Your task to perform on an android device: open app "Gmail" (install if not already installed), go to login, and select forgot password Image 0: 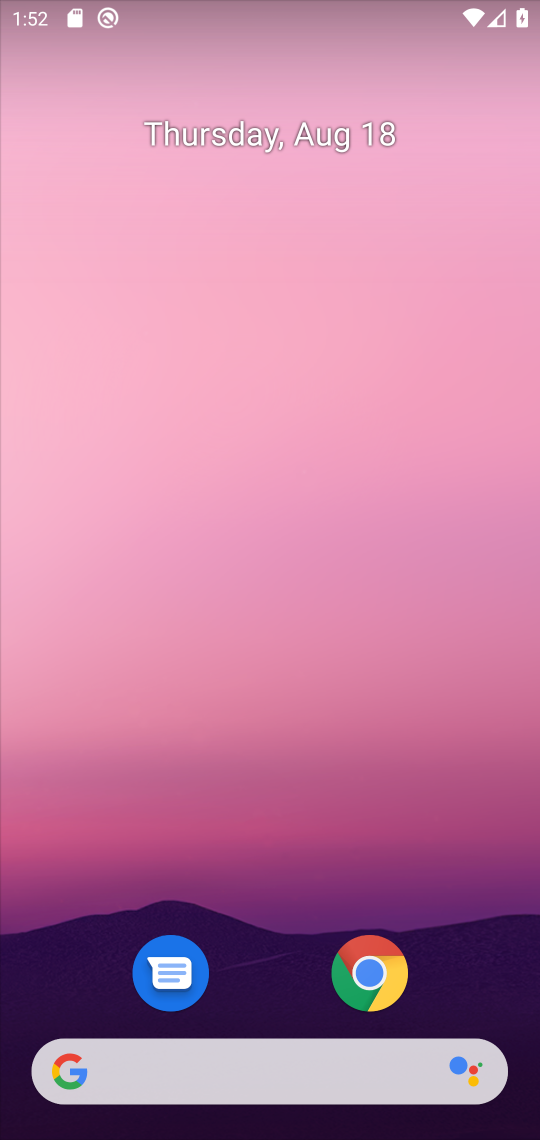
Step 0: drag from (264, 1028) to (272, 206)
Your task to perform on an android device: open app "Gmail" (install if not already installed), go to login, and select forgot password Image 1: 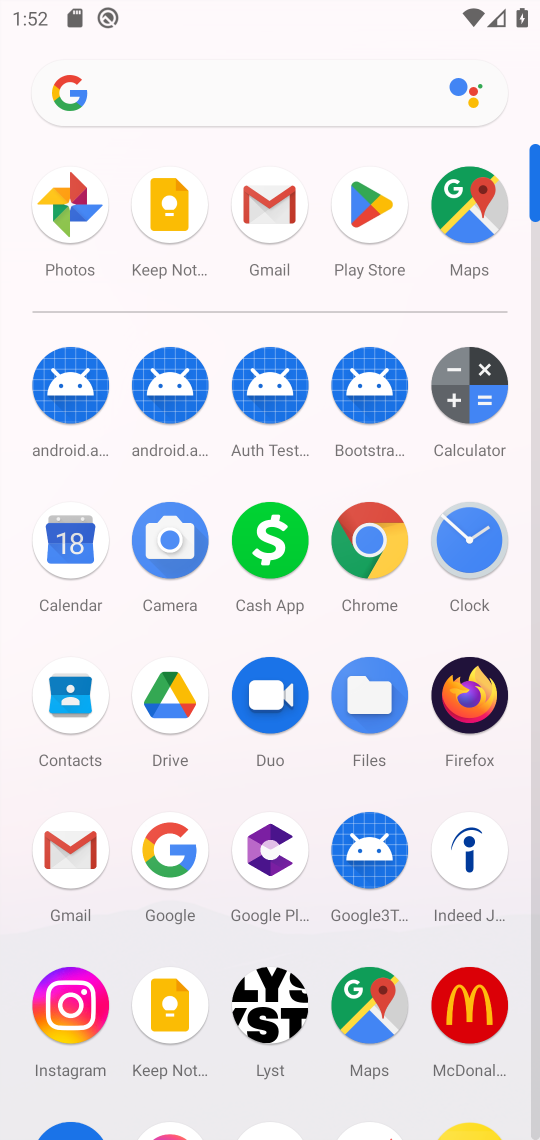
Step 1: click (314, 215)
Your task to perform on an android device: open app "Gmail" (install if not already installed), go to login, and select forgot password Image 2: 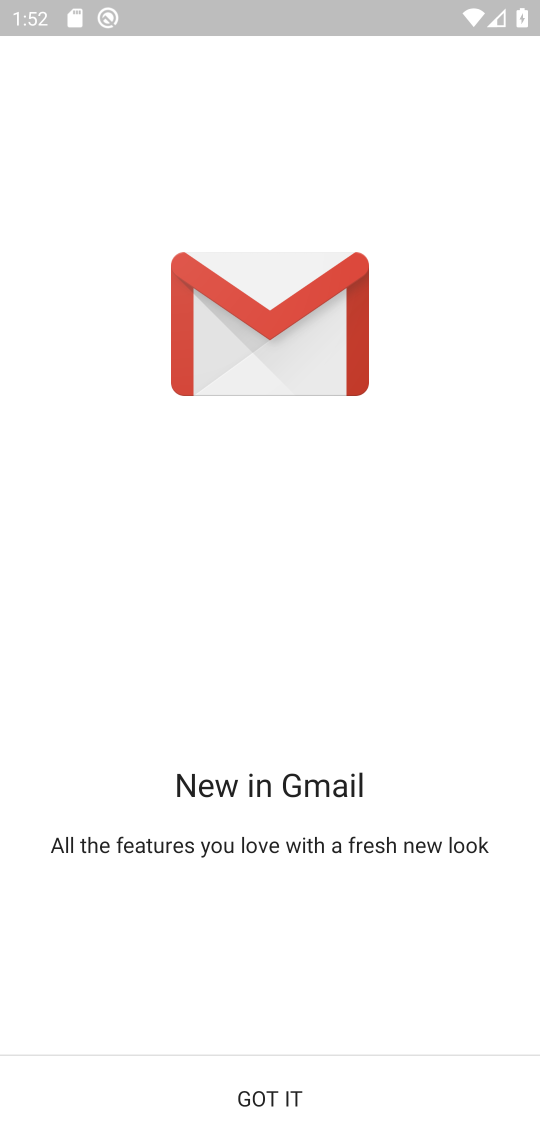
Step 2: task complete